Your task to perform on an android device: turn off javascript in the chrome app Image 0: 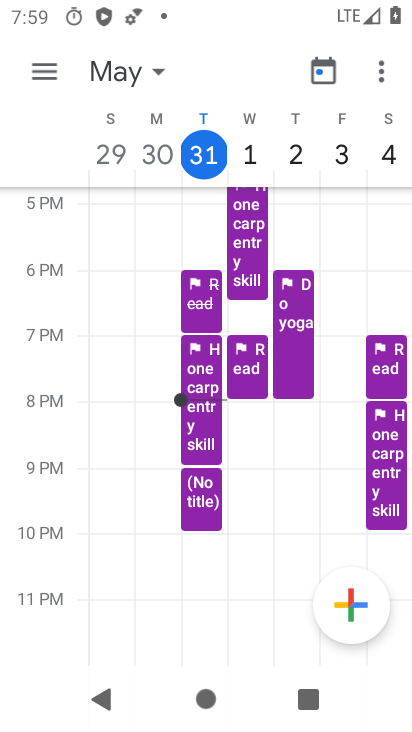
Step 0: press home button
Your task to perform on an android device: turn off javascript in the chrome app Image 1: 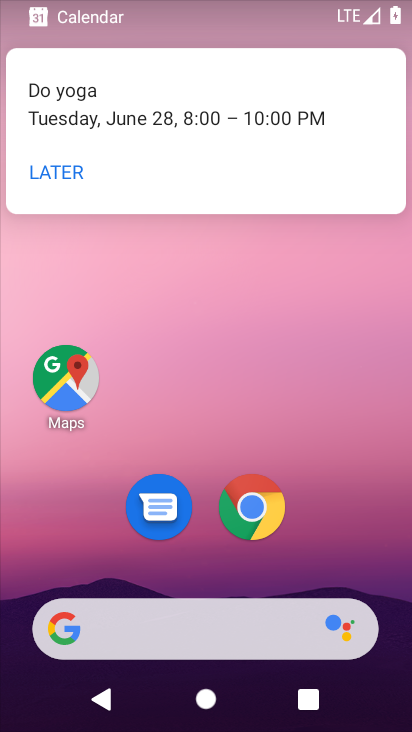
Step 1: click (253, 508)
Your task to perform on an android device: turn off javascript in the chrome app Image 2: 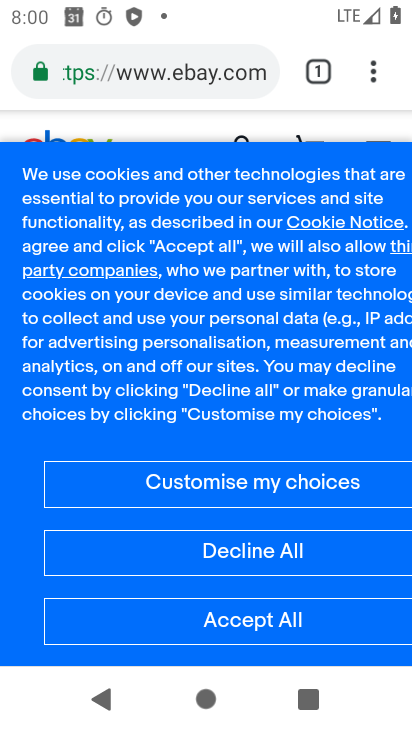
Step 2: click (375, 71)
Your task to perform on an android device: turn off javascript in the chrome app Image 3: 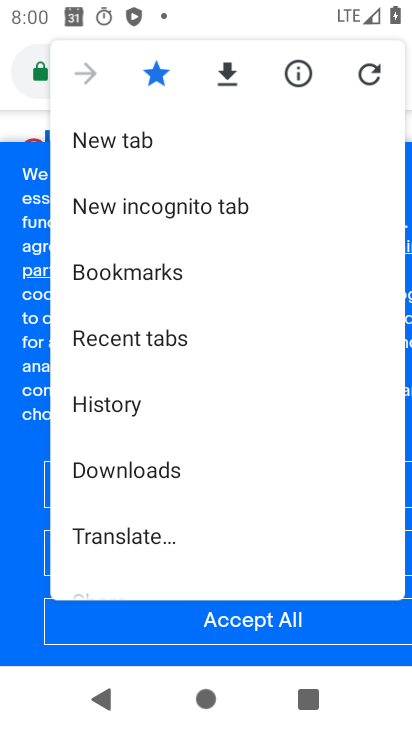
Step 3: drag from (213, 536) to (200, 53)
Your task to perform on an android device: turn off javascript in the chrome app Image 4: 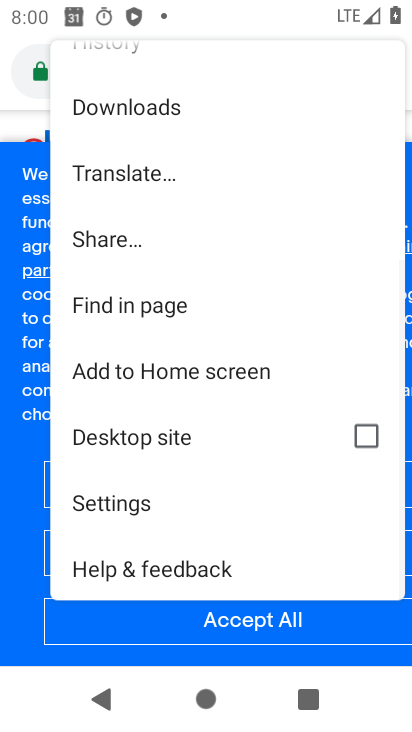
Step 4: click (95, 502)
Your task to perform on an android device: turn off javascript in the chrome app Image 5: 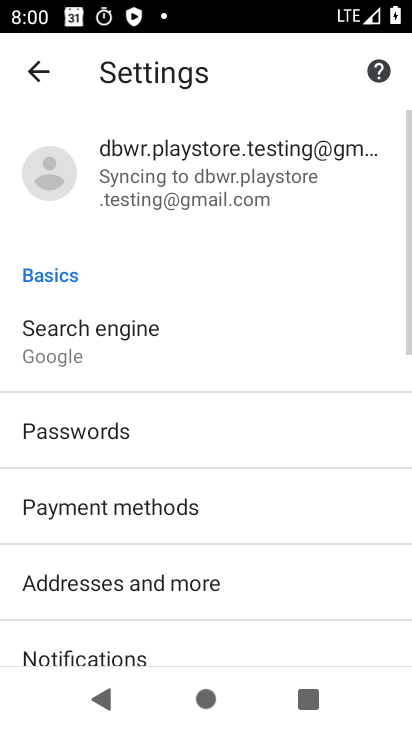
Step 5: drag from (247, 578) to (250, 126)
Your task to perform on an android device: turn off javascript in the chrome app Image 6: 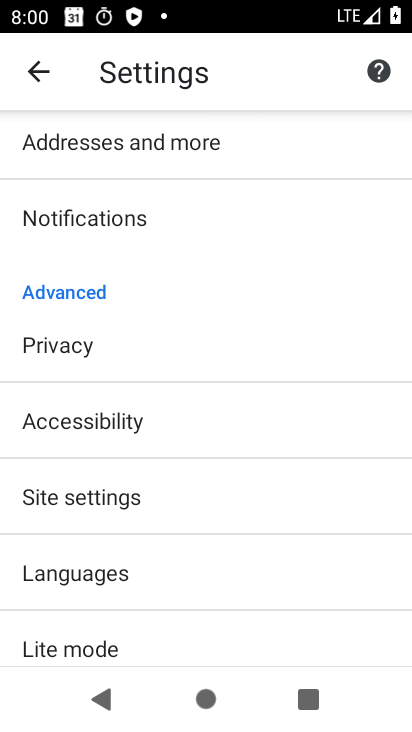
Step 6: click (71, 496)
Your task to perform on an android device: turn off javascript in the chrome app Image 7: 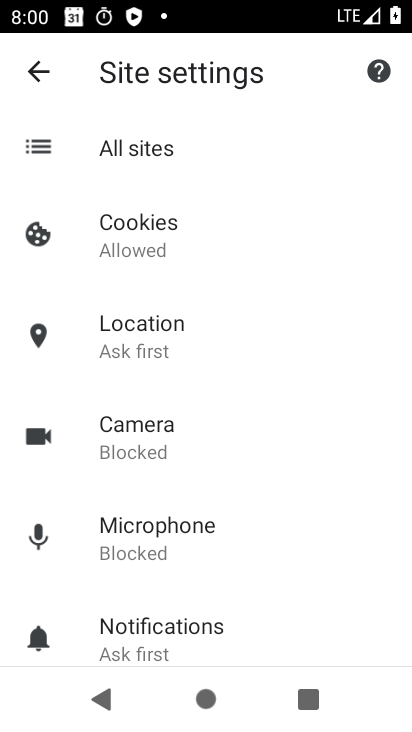
Step 7: drag from (291, 562) to (294, 223)
Your task to perform on an android device: turn off javascript in the chrome app Image 8: 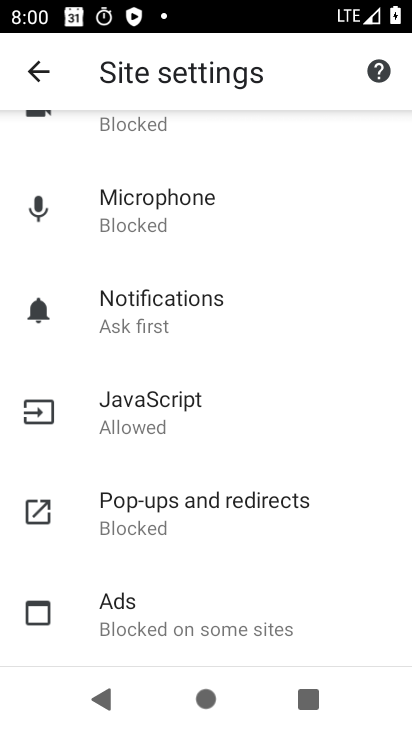
Step 8: click (126, 414)
Your task to perform on an android device: turn off javascript in the chrome app Image 9: 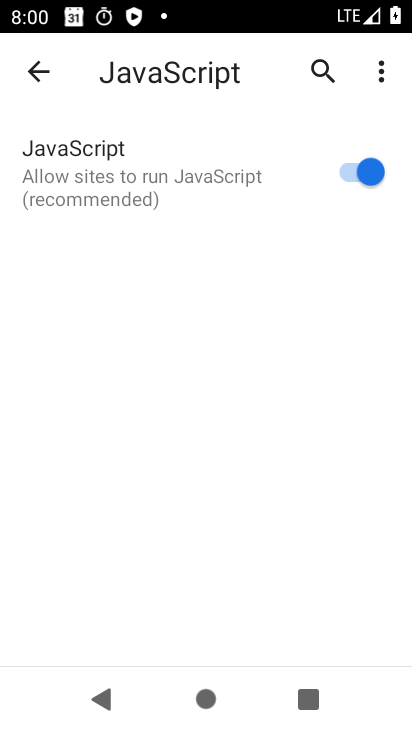
Step 9: click (354, 176)
Your task to perform on an android device: turn off javascript in the chrome app Image 10: 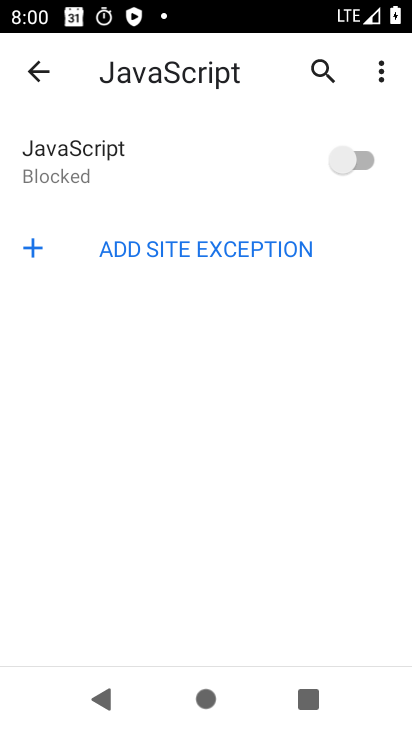
Step 10: task complete